Your task to perform on an android device: Toggle the flashlight Image 0: 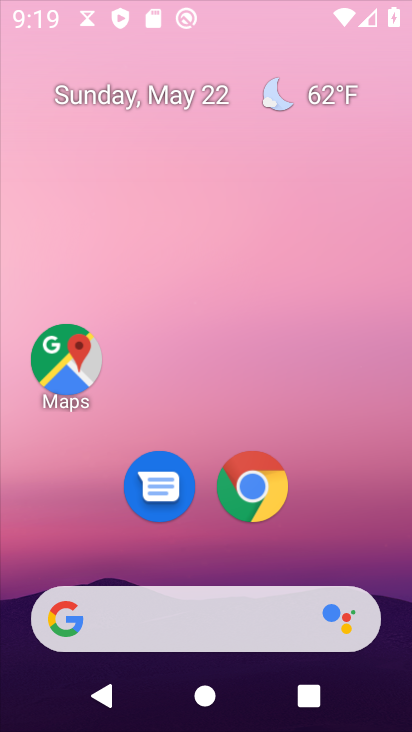
Step 0: drag from (217, 238) to (217, 27)
Your task to perform on an android device: Toggle the flashlight Image 1: 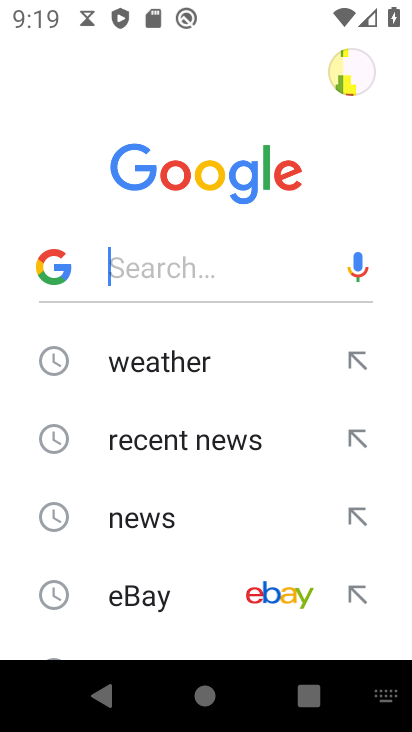
Step 1: press home button
Your task to perform on an android device: Toggle the flashlight Image 2: 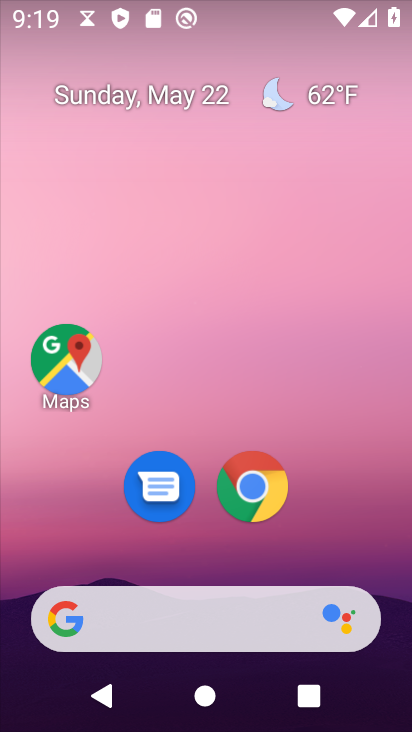
Step 2: drag from (210, 564) to (215, 71)
Your task to perform on an android device: Toggle the flashlight Image 3: 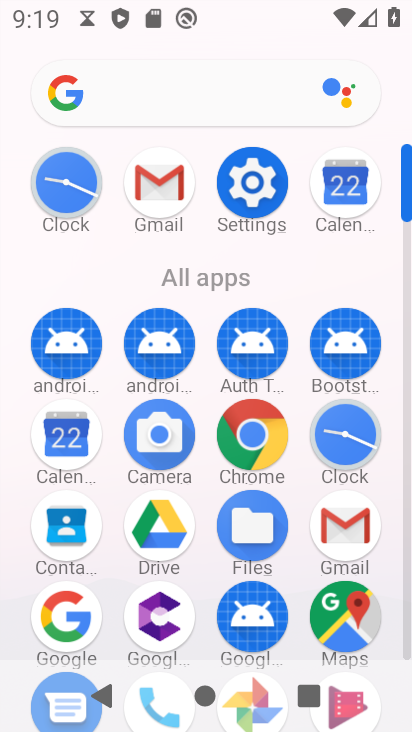
Step 3: click (250, 184)
Your task to perform on an android device: Toggle the flashlight Image 4: 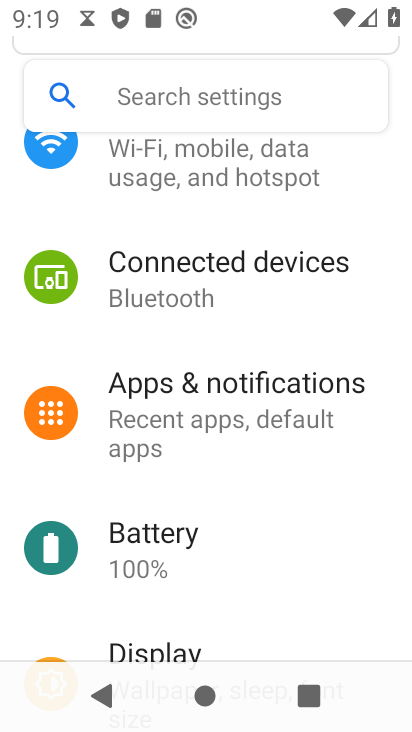
Step 4: click (156, 86)
Your task to perform on an android device: Toggle the flashlight Image 5: 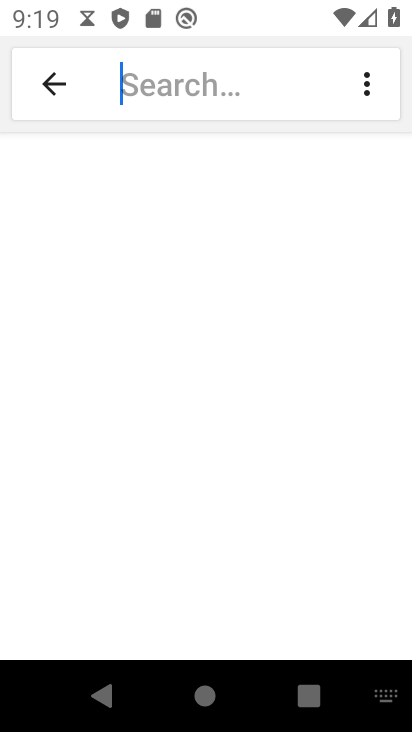
Step 5: type "flashlight"
Your task to perform on an android device: Toggle the flashlight Image 6: 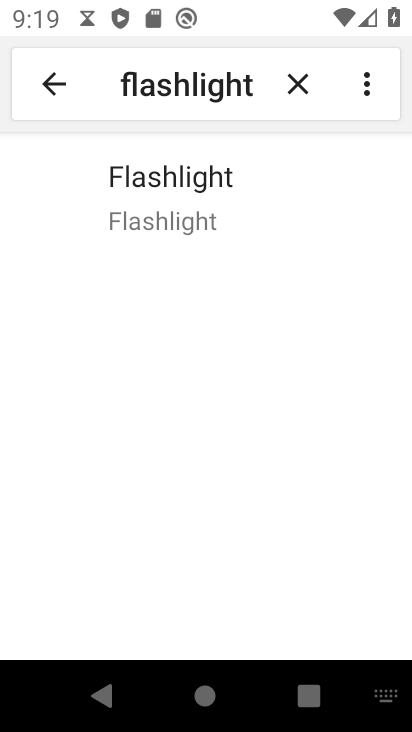
Step 6: click (224, 199)
Your task to perform on an android device: Toggle the flashlight Image 7: 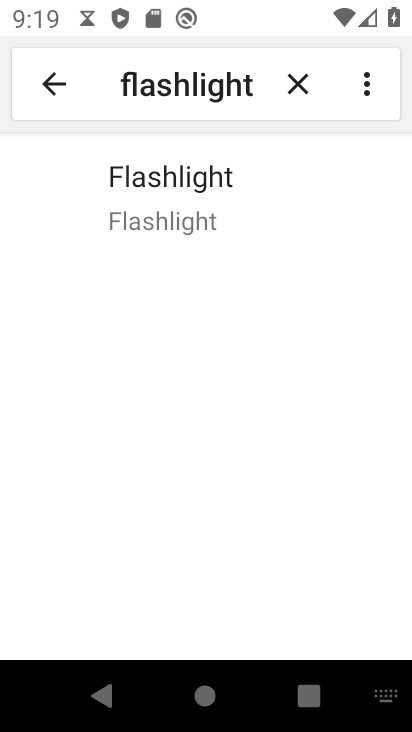
Step 7: task complete